Your task to perform on an android device: turn on improve location accuracy Image 0: 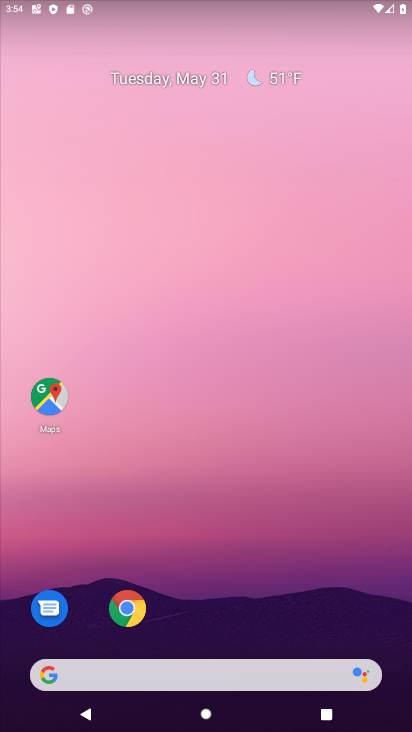
Step 0: drag from (222, 654) to (224, 356)
Your task to perform on an android device: turn on improve location accuracy Image 1: 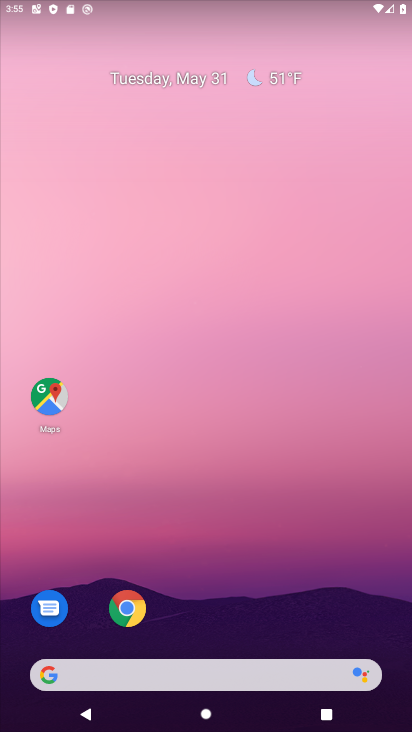
Step 1: drag from (183, 497) to (183, 293)
Your task to perform on an android device: turn on improve location accuracy Image 2: 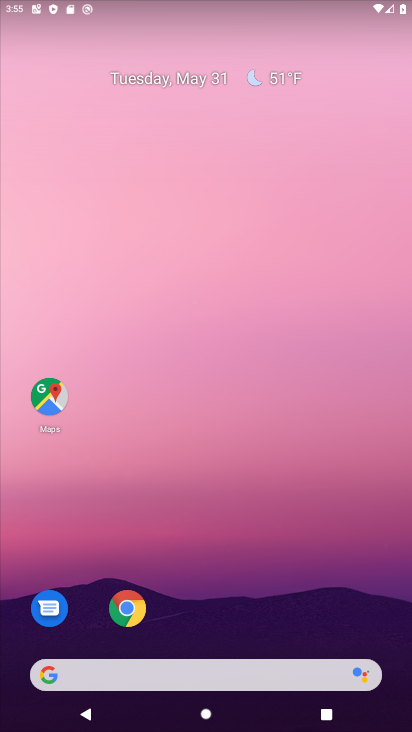
Step 2: drag from (214, 660) to (225, 276)
Your task to perform on an android device: turn on improve location accuracy Image 3: 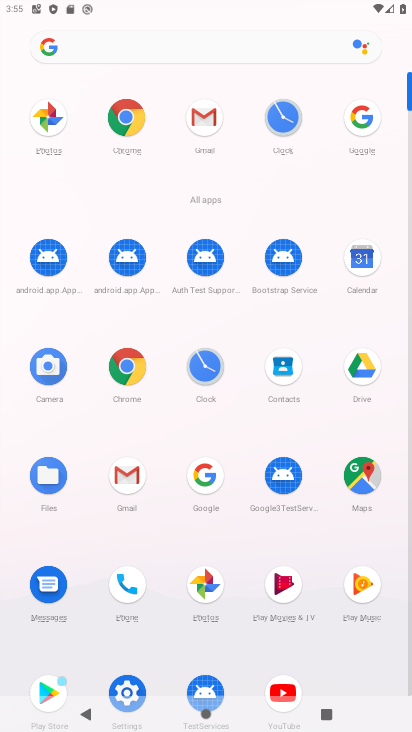
Step 3: drag from (165, 582) to (162, 220)
Your task to perform on an android device: turn on improve location accuracy Image 4: 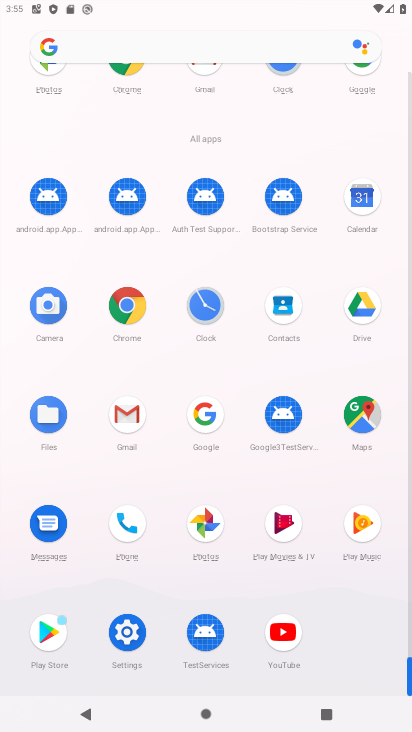
Step 4: click (128, 626)
Your task to perform on an android device: turn on improve location accuracy Image 5: 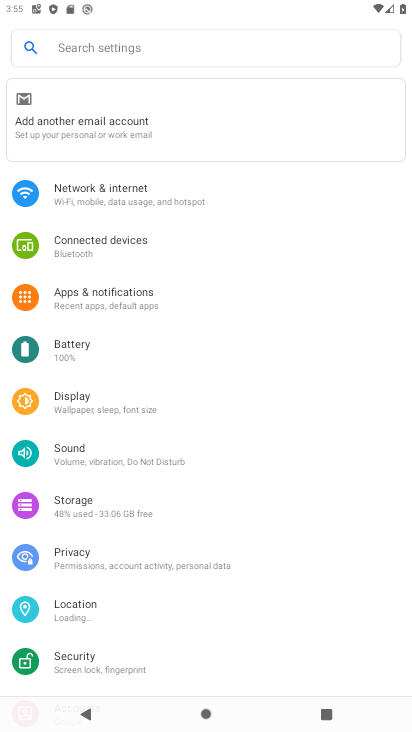
Step 5: click (76, 606)
Your task to perform on an android device: turn on improve location accuracy Image 6: 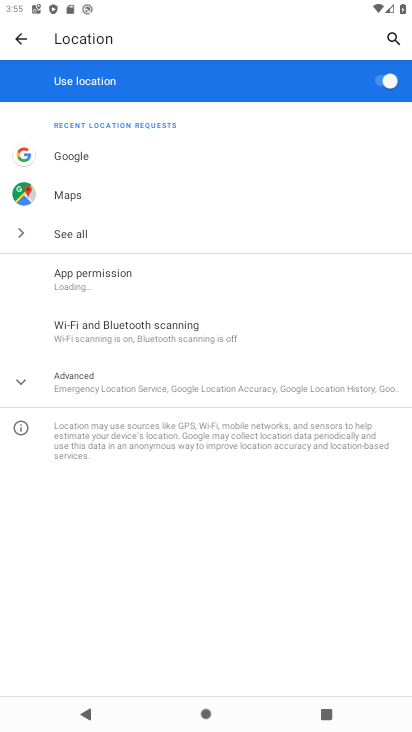
Step 6: click (114, 378)
Your task to perform on an android device: turn on improve location accuracy Image 7: 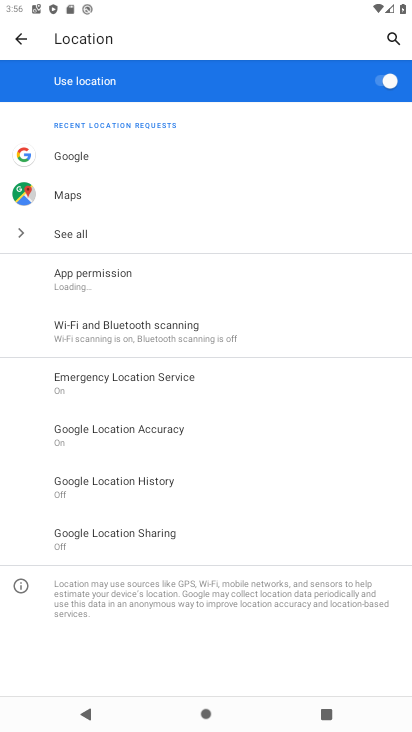
Step 7: click (131, 433)
Your task to perform on an android device: turn on improve location accuracy Image 8: 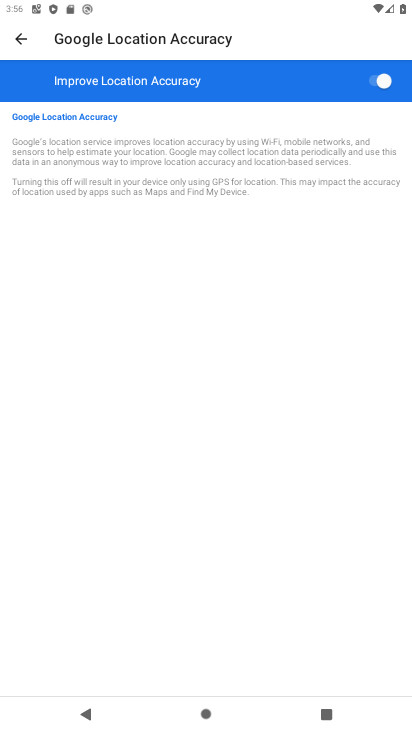
Step 8: task complete